Your task to perform on an android device: toggle airplane mode Image 0: 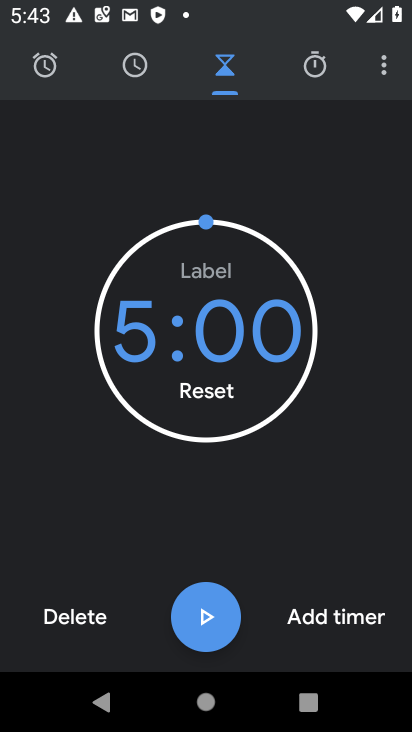
Step 0: press home button
Your task to perform on an android device: toggle airplane mode Image 1: 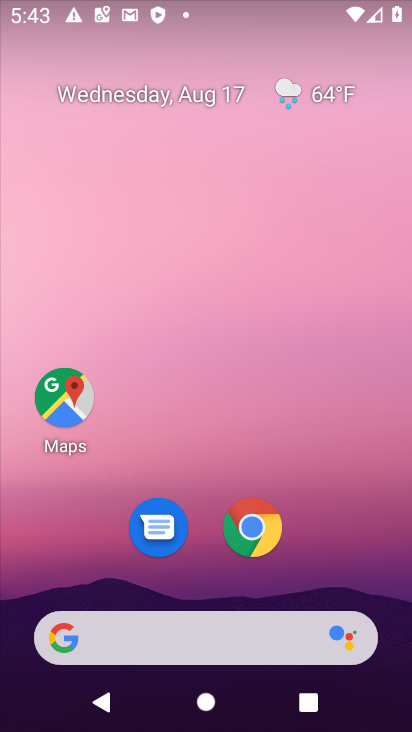
Step 1: drag from (126, 632) to (134, 209)
Your task to perform on an android device: toggle airplane mode Image 2: 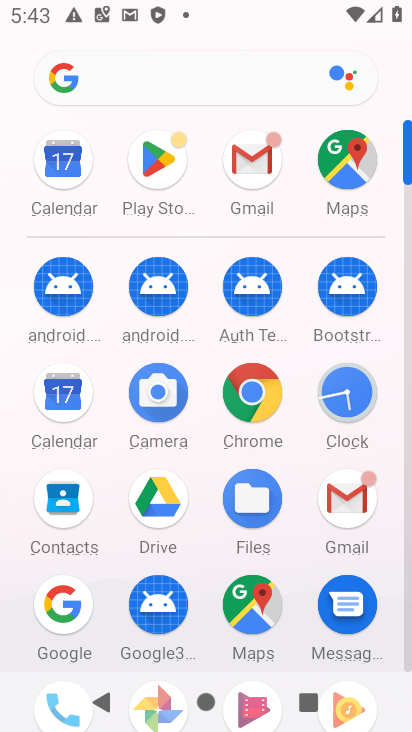
Step 2: drag from (204, 617) to (202, 219)
Your task to perform on an android device: toggle airplane mode Image 3: 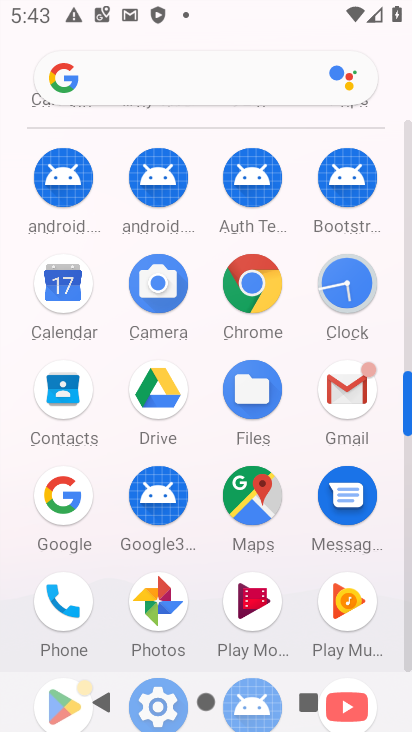
Step 3: drag from (194, 647) to (202, 289)
Your task to perform on an android device: toggle airplane mode Image 4: 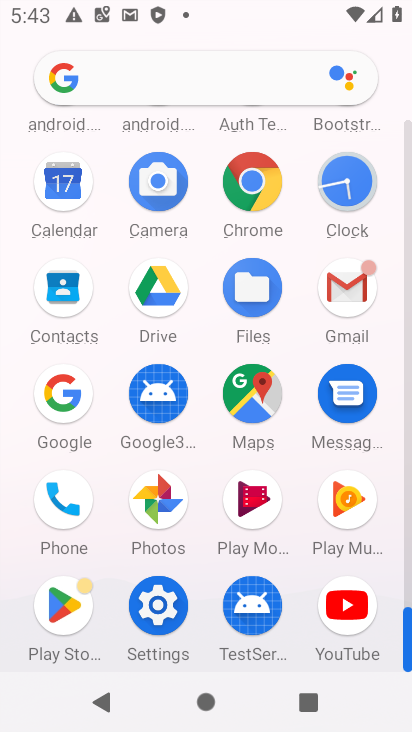
Step 4: click (163, 609)
Your task to perform on an android device: toggle airplane mode Image 5: 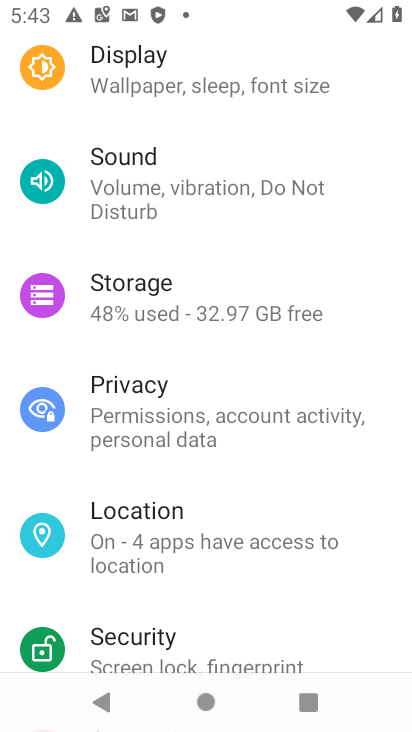
Step 5: drag from (137, 137) to (138, 573)
Your task to perform on an android device: toggle airplane mode Image 6: 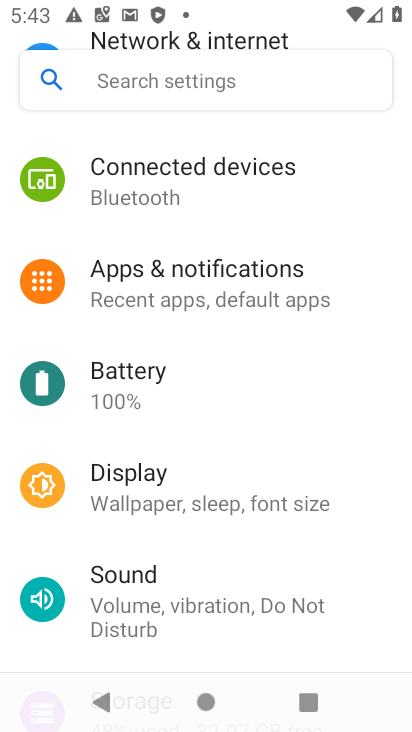
Step 6: drag from (126, 131) to (126, 539)
Your task to perform on an android device: toggle airplane mode Image 7: 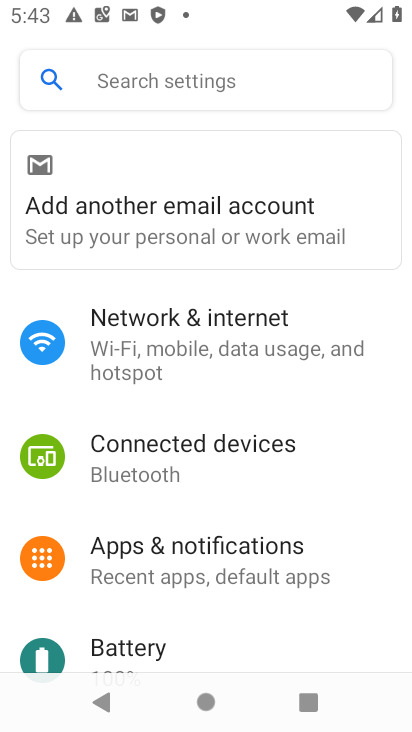
Step 7: click (100, 344)
Your task to perform on an android device: toggle airplane mode Image 8: 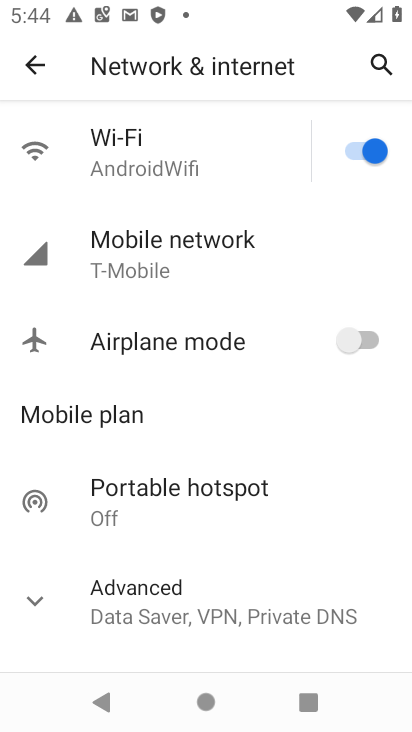
Step 8: click (368, 329)
Your task to perform on an android device: toggle airplane mode Image 9: 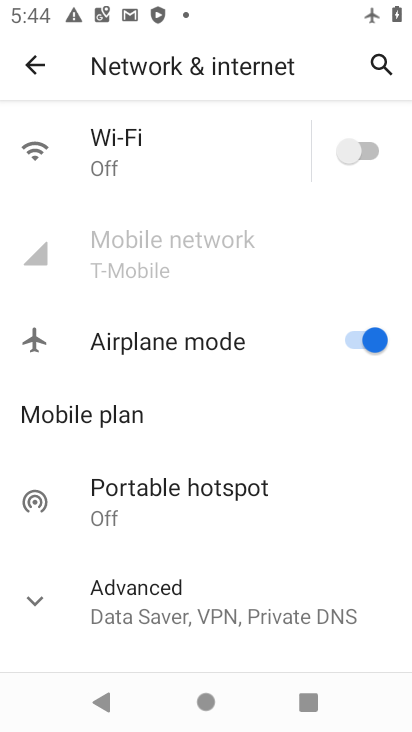
Step 9: task complete